Your task to perform on an android device: turn off wifi Image 0: 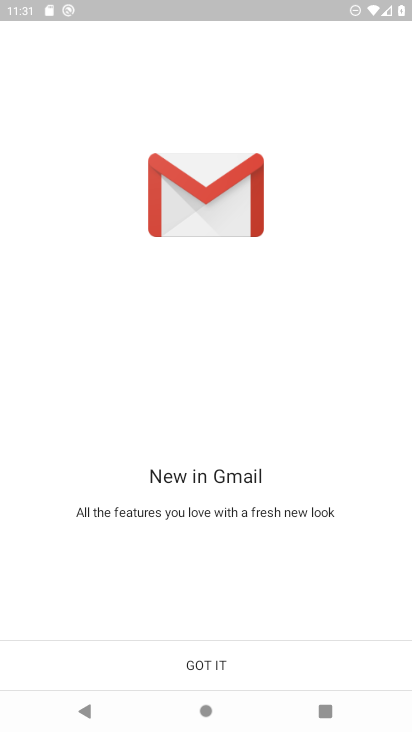
Step 0: press home button
Your task to perform on an android device: turn off wifi Image 1: 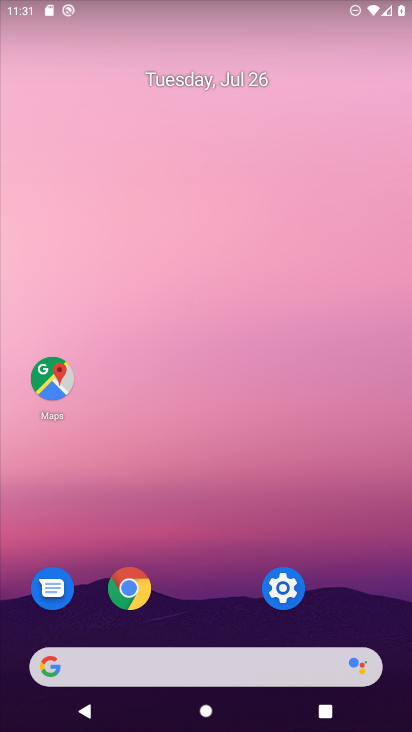
Step 1: click (276, 600)
Your task to perform on an android device: turn off wifi Image 2: 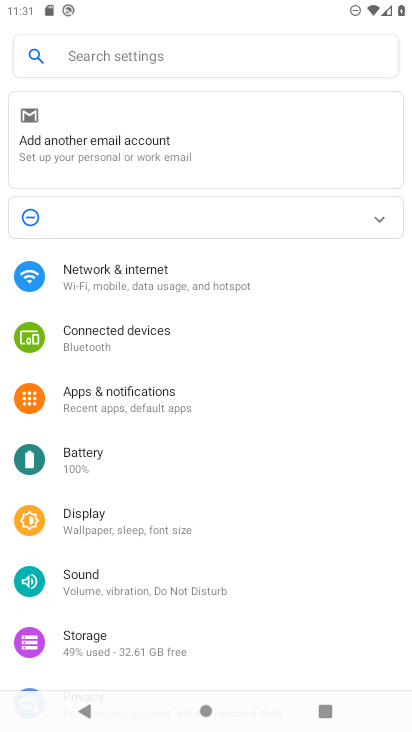
Step 2: click (110, 188)
Your task to perform on an android device: turn off wifi Image 3: 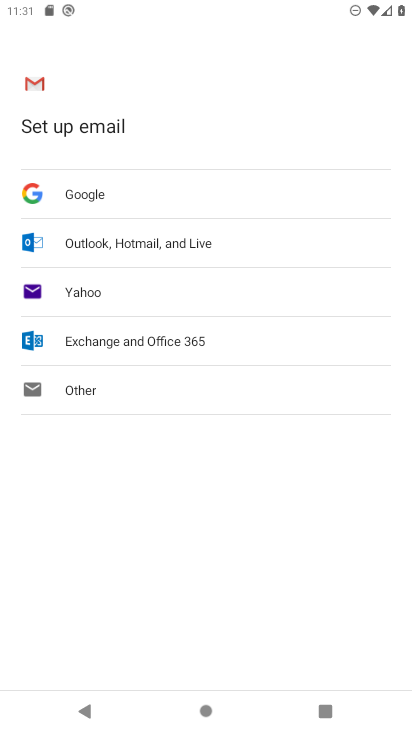
Step 3: press back button
Your task to perform on an android device: turn off wifi Image 4: 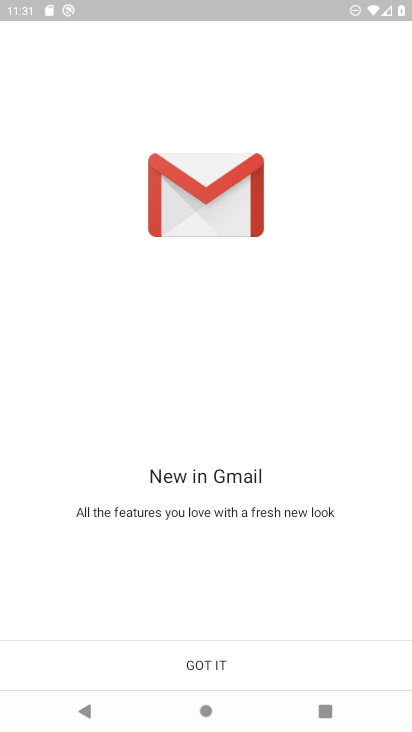
Step 4: press back button
Your task to perform on an android device: turn off wifi Image 5: 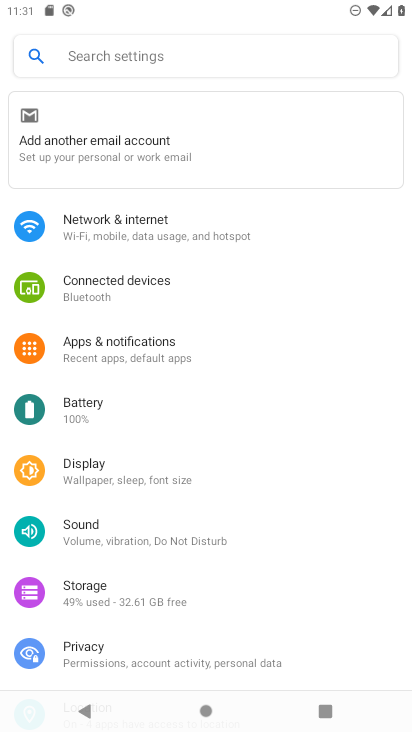
Step 5: click (167, 229)
Your task to perform on an android device: turn off wifi Image 6: 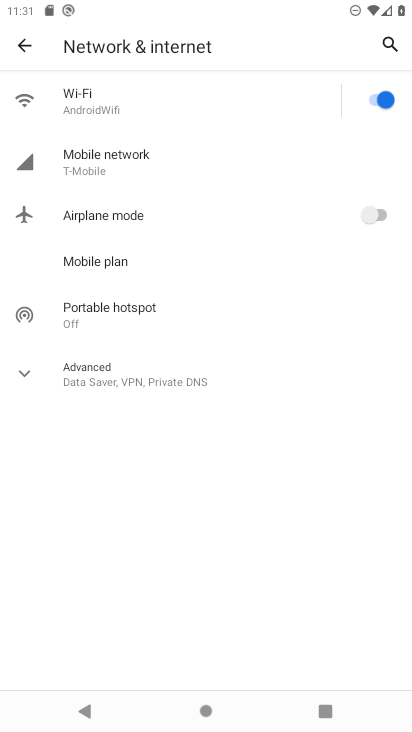
Step 6: click (191, 120)
Your task to perform on an android device: turn off wifi Image 7: 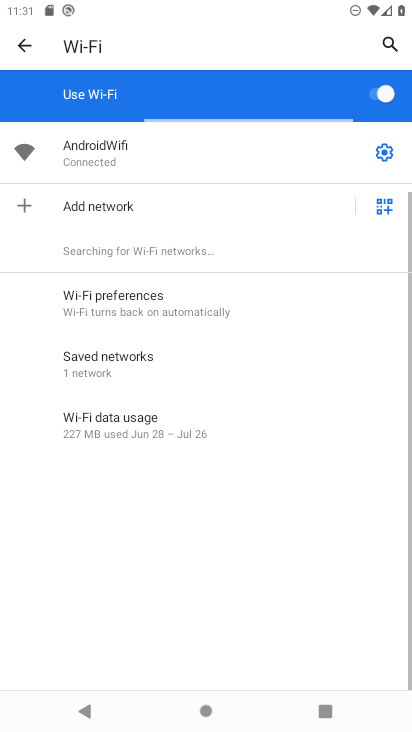
Step 7: click (373, 103)
Your task to perform on an android device: turn off wifi Image 8: 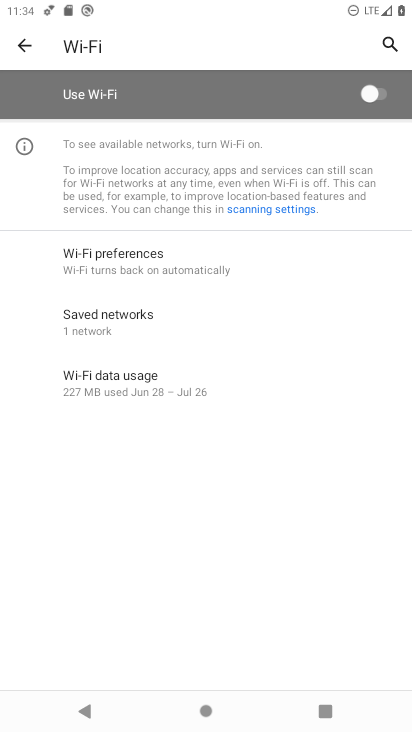
Step 8: task complete